Your task to perform on an android device: turn notification dots off Image 0: 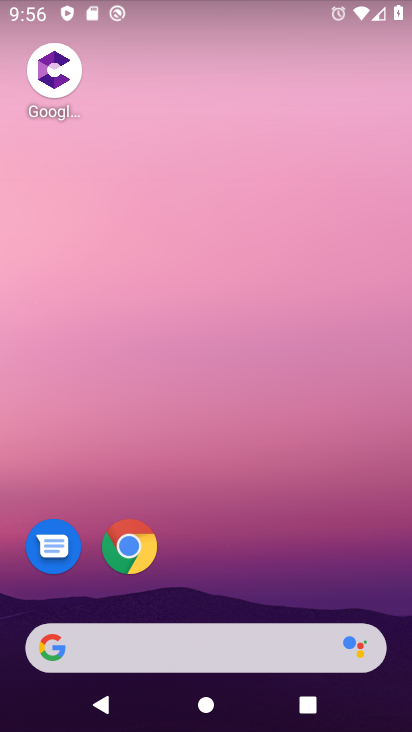
Step 0: drag from (283, 650) to (270, 79)
Your task to perform on an android device: turn notification dots off Image 1: 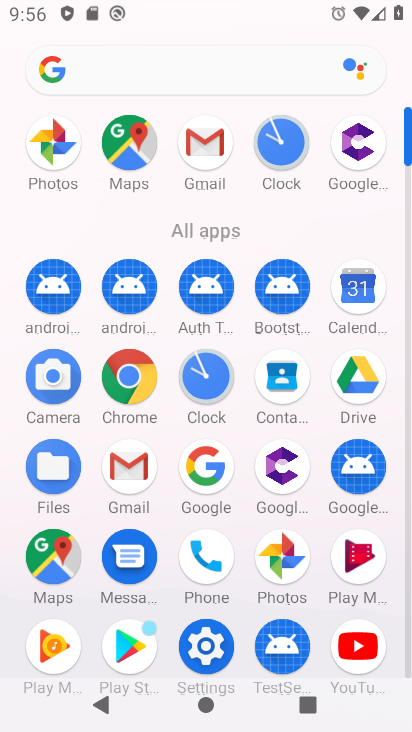
Step 1: click (189, 657)
Your task to perform on an android device: turn notification dots off Image 2: 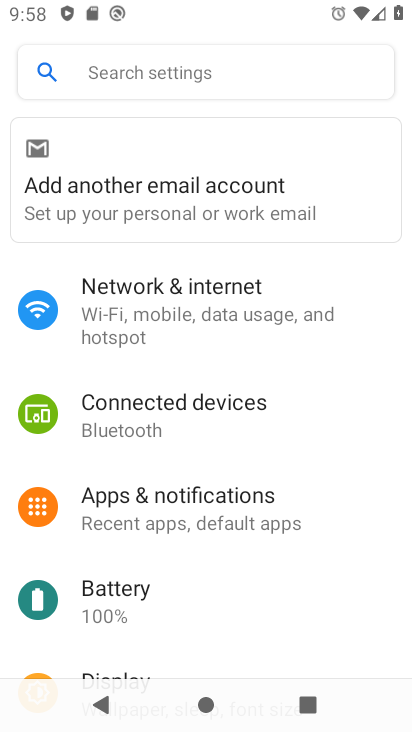
Step 2: click (214, 517)
Your task to perform on an android device: turn notification dots off Image 3: 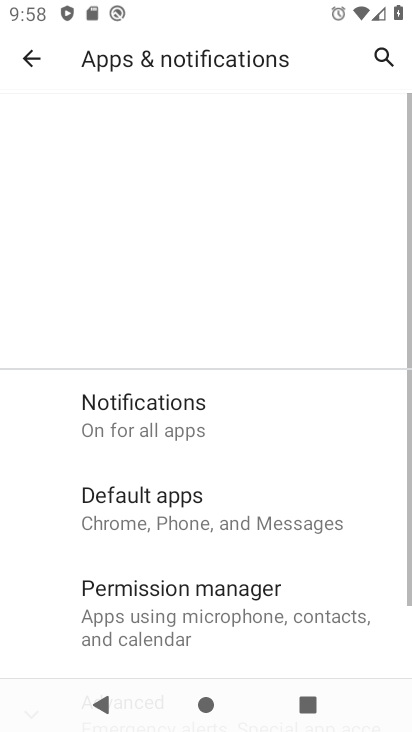
Step 3: drag from (165, 614) to (178, 167)
Your task to perform on an android device: turn notification dots off Image 4: 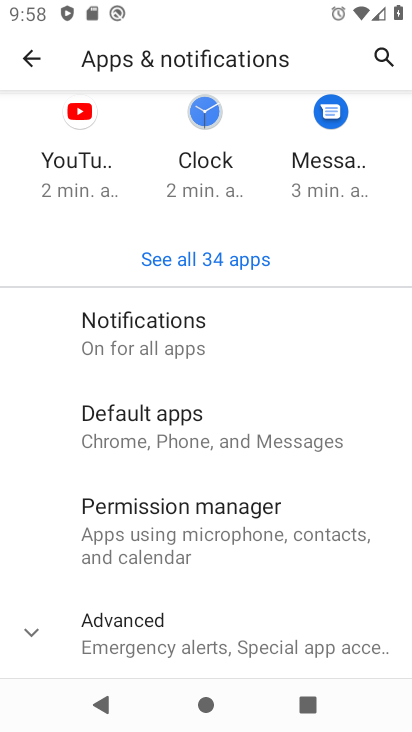
Step 4: click (148, 337)
Your task to perform on an android device: turn notification dots off Image 5: 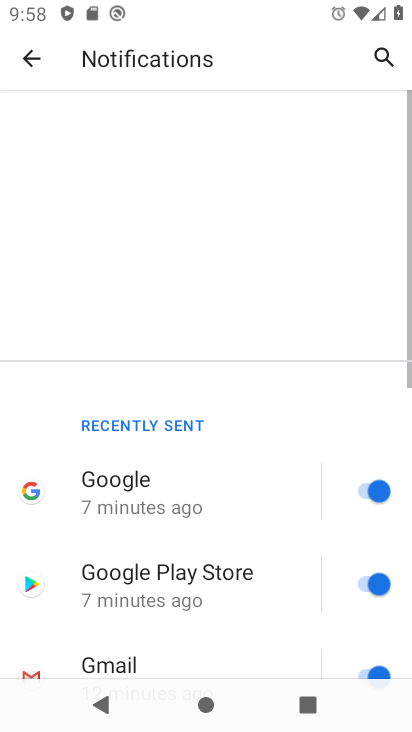
Step 5: drag from (206, 527) to (244, 81)
Your task to perform on an android device: turn notification dots off Image 6: 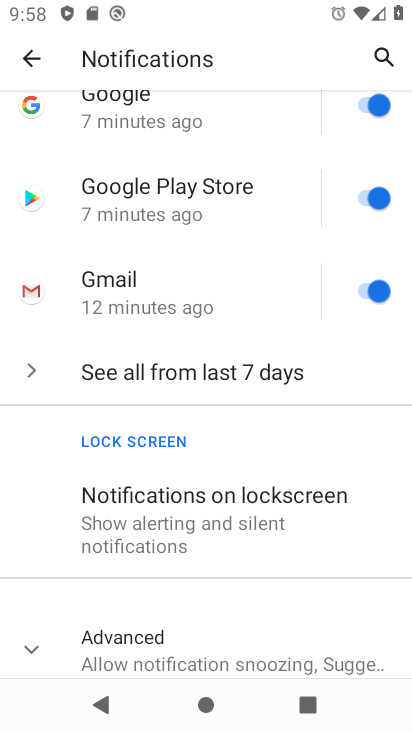
Step 6: click (226, 518)
Your task to perform on an android device: turn notification dots off Image 7: 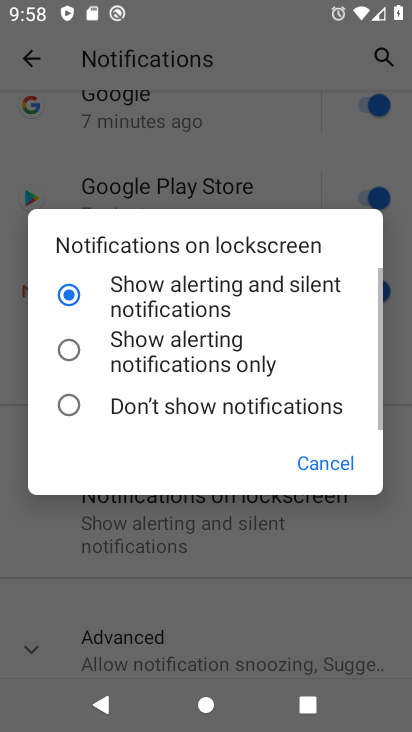
Step 7: click (331, 147)
Your task to perform on an android device: turn notification dots off Image 8: 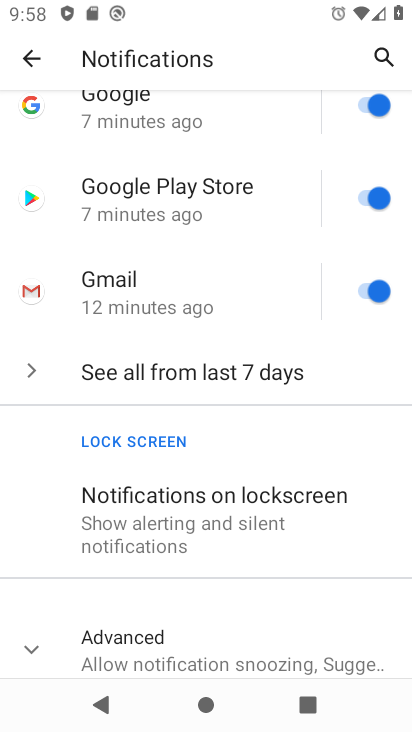
Step 8: drag from (139, 659) to (203, 243)
Your task to perform on an android device: turn notification dots off Image 9: 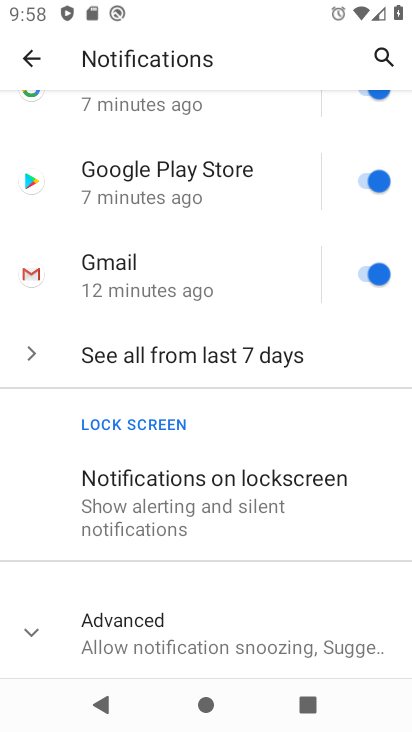
Step 9: click (104, 619)
Your task to perform on an android device: turn notification dots off Image 10: 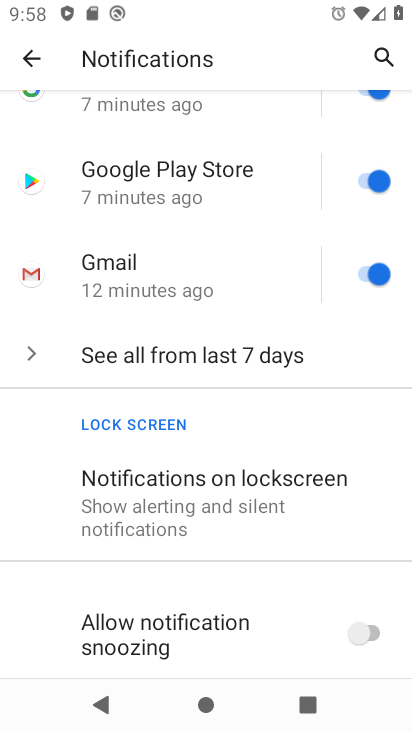
Step 10: drag from (199, 620) to (218, 162)
Your task to perform on an android device: turn notification dots off Image 11: 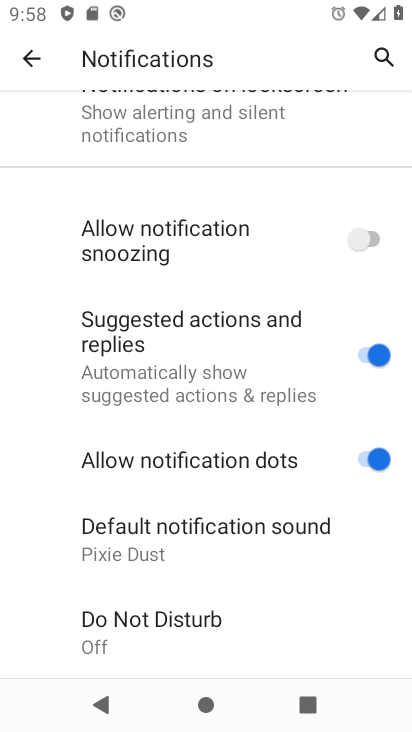
Step 11: click (375, 448)
Your task to perform on an android device: turn notification dots off Image 12: 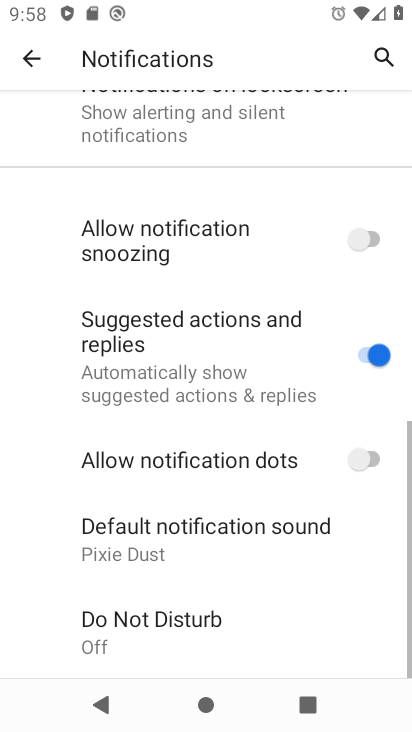
Step 12: task complete